Your task to perform on an android device: open chrome and create a bookmark for the current page Image 0: 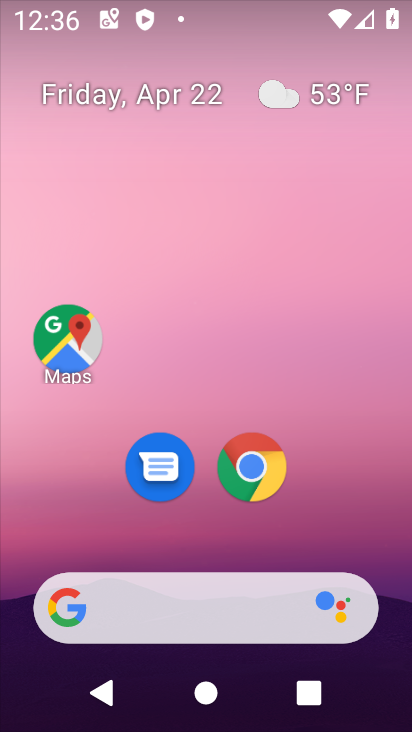
Step 0: click (248, 463)
Your task to perform on an android device: open chrome and create a bookmark for the current page Image 1: 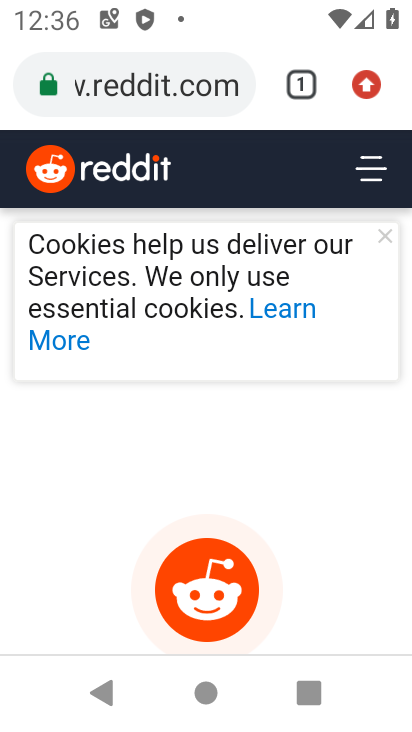
Step 1: click (365, 88)
Your task to perform on an android device: open chrome and create a bookmark for the current page Image 2: 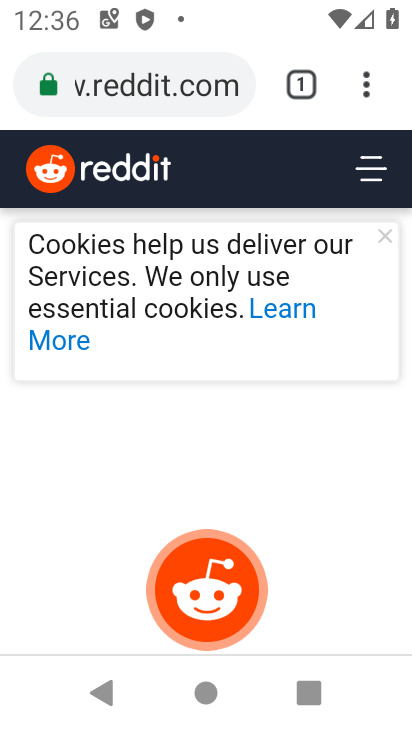
Step 2: click (363, 88)
Your task to perform on an android device: open chrome and create a bookmark for the current page Image 3: 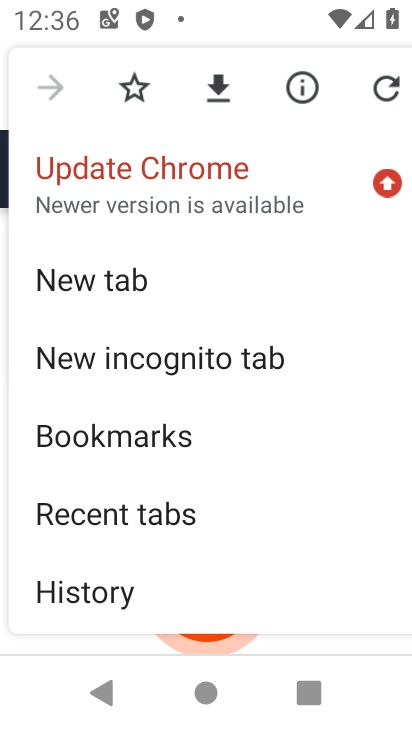
Step 3: click (133, 83)
Your task to perform on an android device: open chrome and create a bookmark for the current page Image 4: 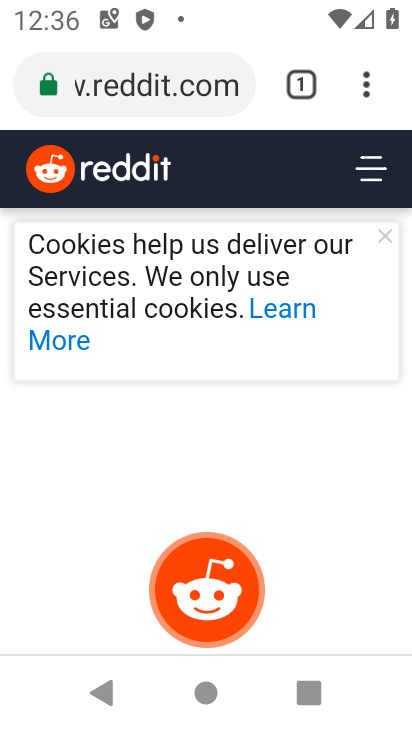
Step 4: task complete